Your task to perform on an android device: turn smart compose on in the gmail app Image 0: 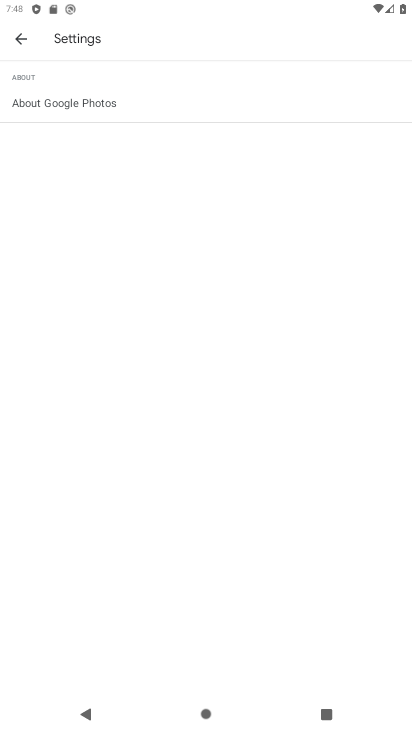
Step 0: press home button
Your task to perform on an android device: turn smart compose on in the gmail app Image 1: 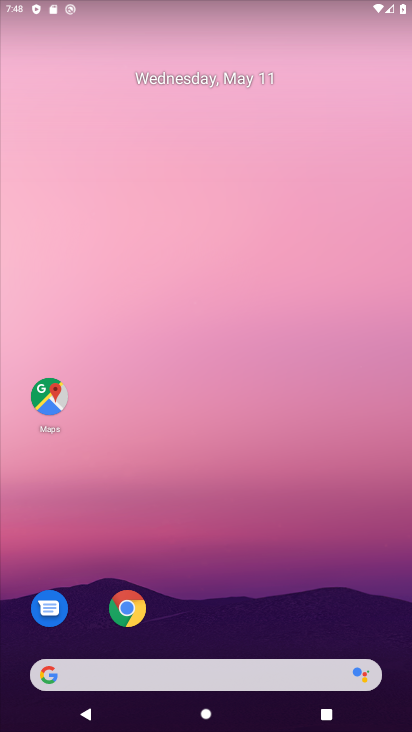
Step 1: drag from (286, 569) to (216, 70)
Your task to perform on an android device: turn smart compose on in the gmail app Image 2: 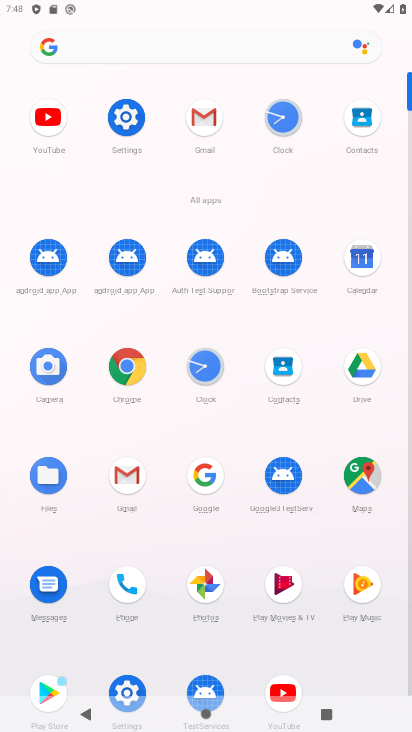
Step 2: click (204, 104)
Your task to perform on an android device: turn smart compose on in the gmail app Image 3: 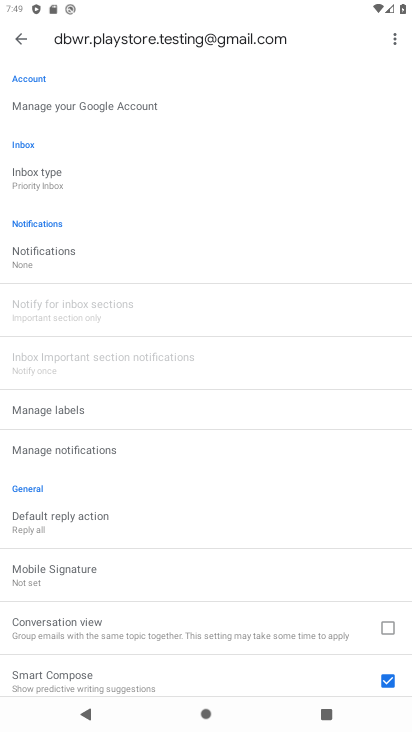
Step 3: task complete